Your task to perform on an android device: Open Chrome and go to the settings page Image 0: 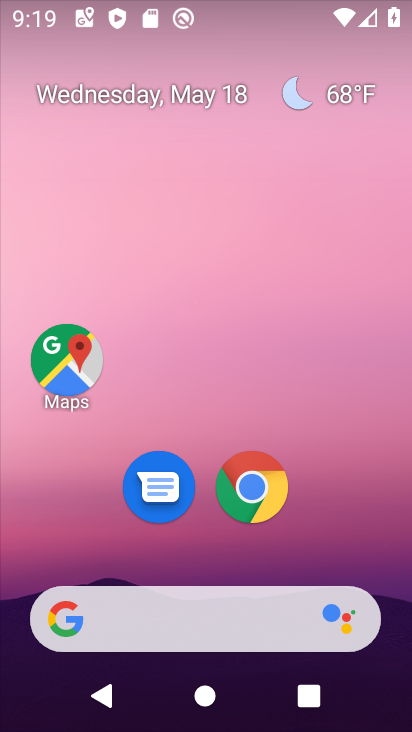
Step 0: drag from (352, 470) to (320, 146)
Your task to perform on an android device: Open Chrome and go to the settings page Image 1: 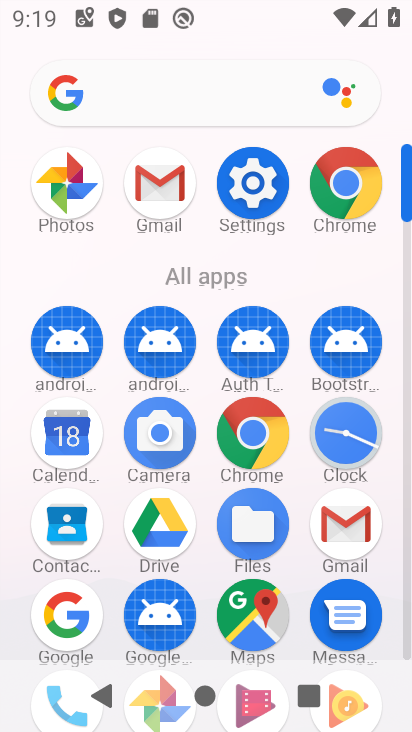
Step 1: click (267, 174)
Your task to perform on an android device: Open Chrome and go to the settings page Image 2: 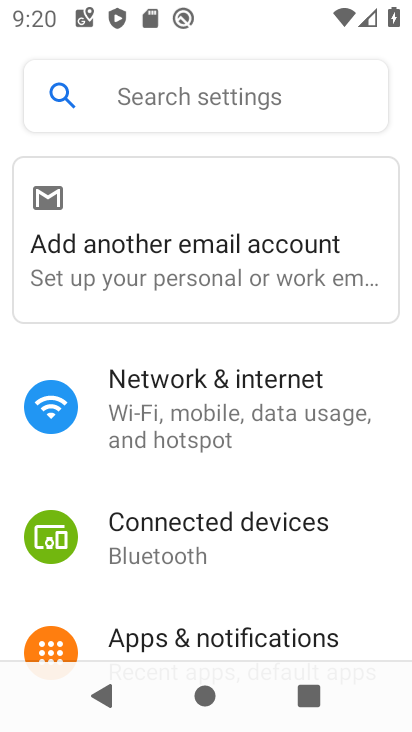
Step 2: press home button
Your task to perform on an android device: Open Chrome and go to the settings page Image 3: 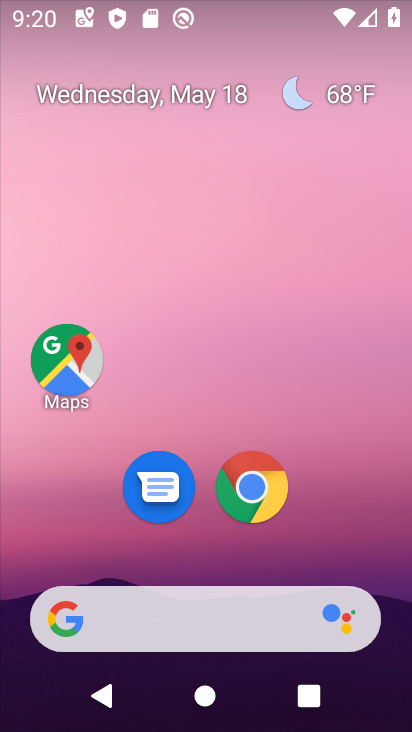
Step 3: click (258, 509)
Your task to perform on an android device: Open Chrome and go to the settings page Image 4: 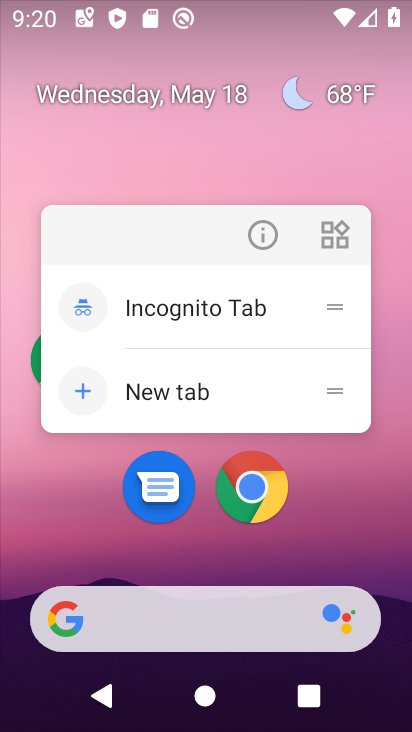
Step 4: click (256, 506)
Your task to perform on an android device: Open Chrome and go to the settings page Image 5: 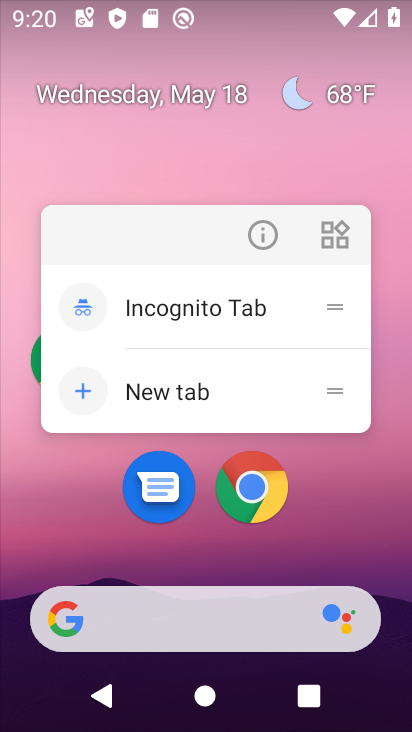
Step 5: click (257, 491)
Your task to perform on an android device: Open Chrome and go to the settings page Image 6: 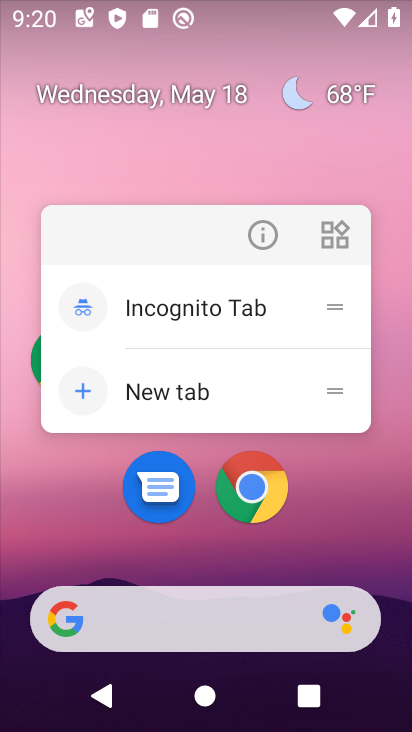
Step 6: click (250, 460)
Your task to perform on an android device: Open Chrome and go to the settings page Image 7: 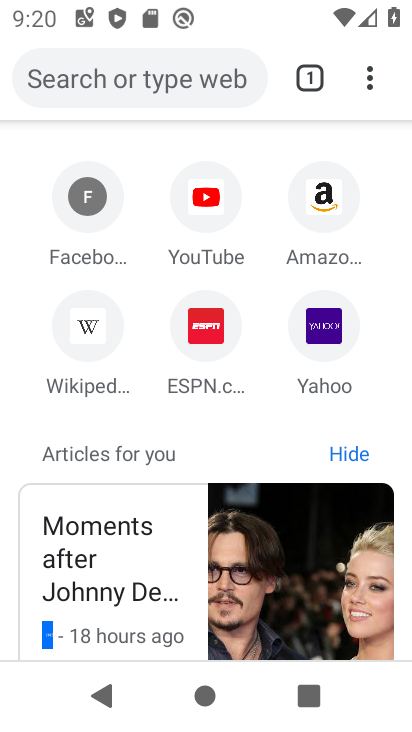
Step 7: task complete